Your task to perform on an android device: toggle priority inbox in the gmail app Image 0: 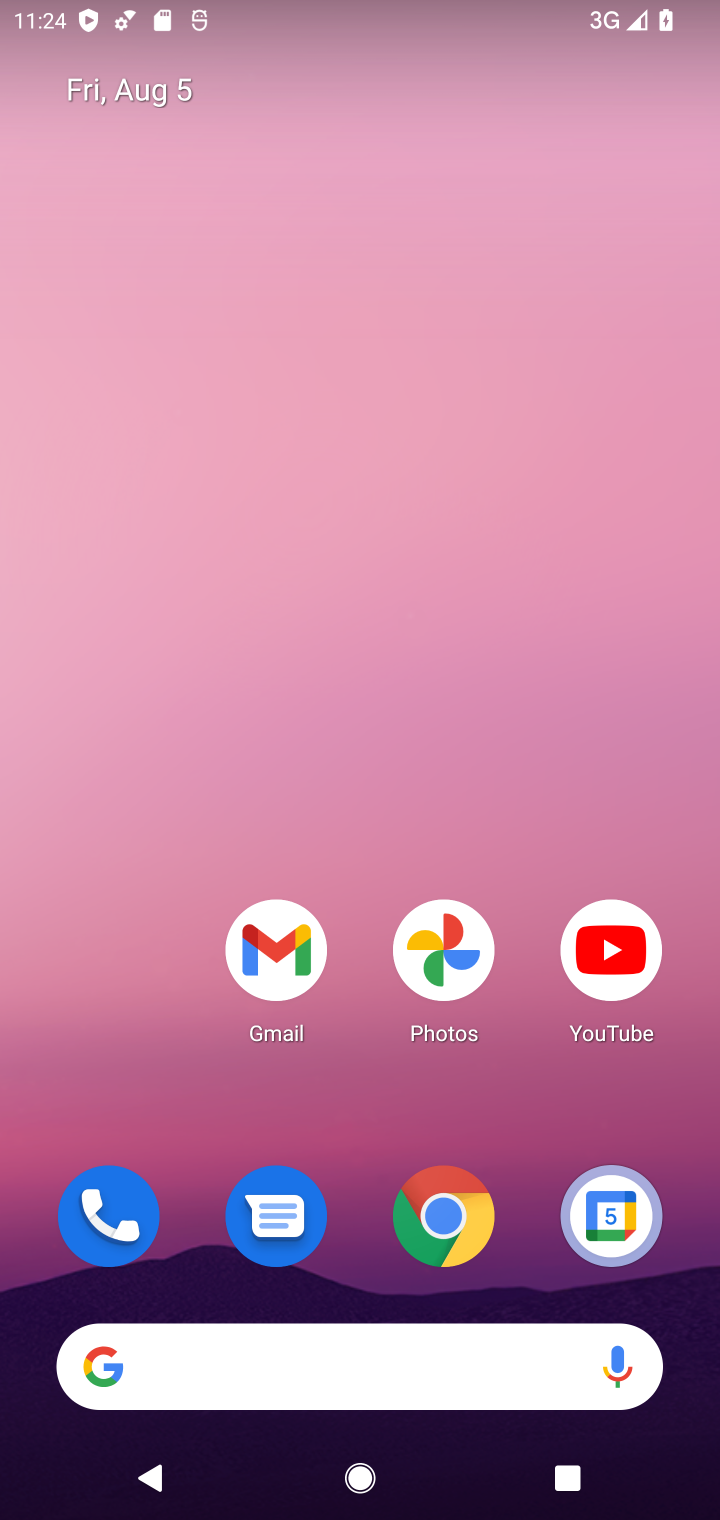
Step 0: drag from (360, 1301) to (244, 166)
Your task to perform on an android device: toggle priority inbox in the gmail app Image 1: 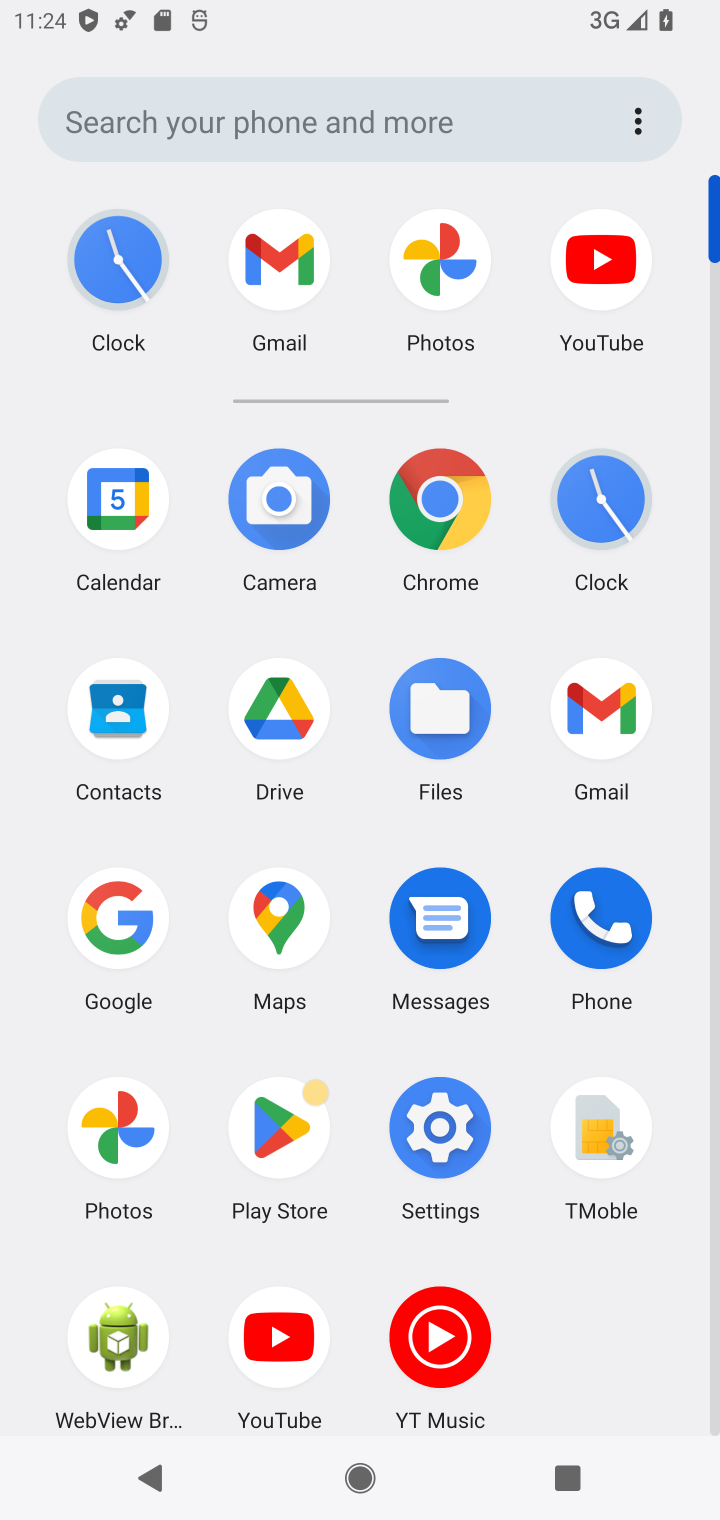
Step 1: click (612, 694)
Your task to perform on an android device: toggle priority inbox in the gmail app Image 2: 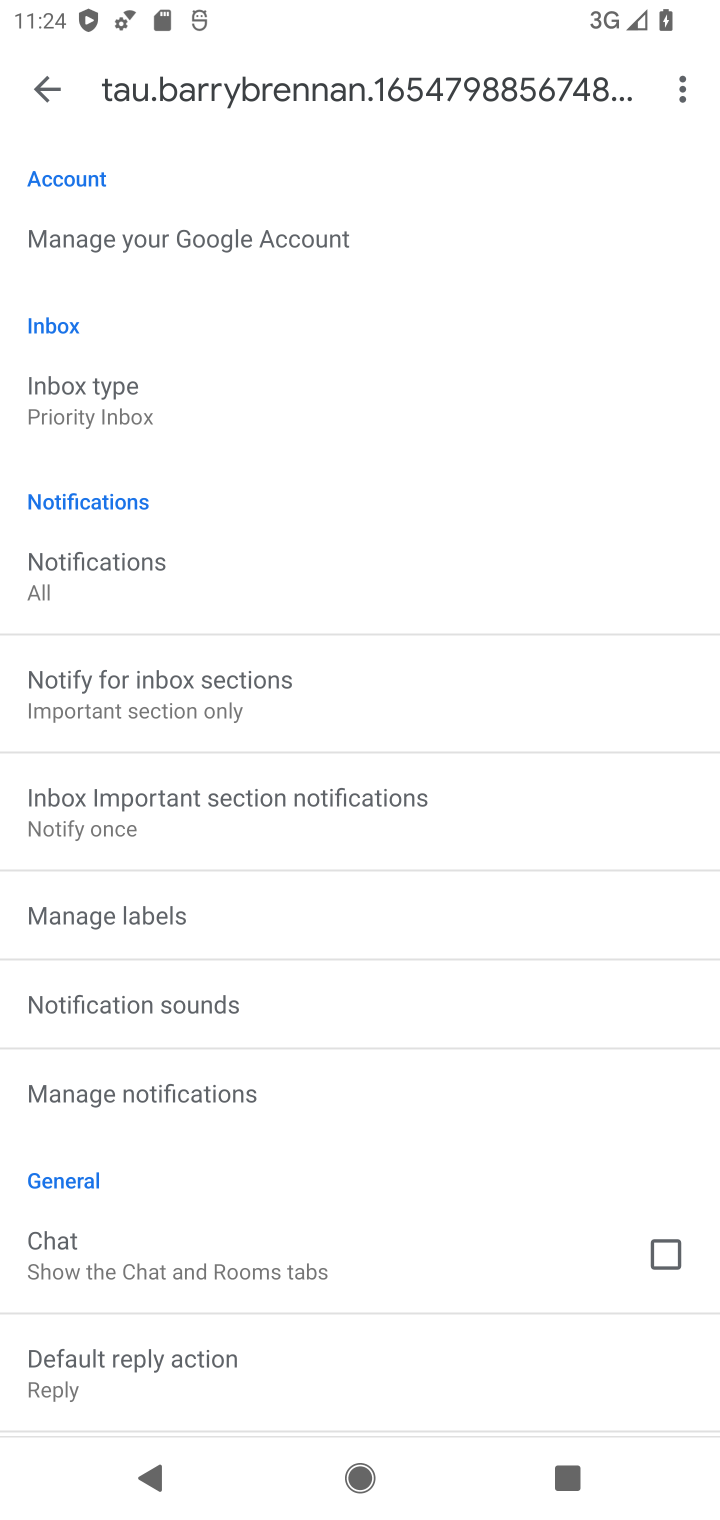
Step 2: click (129, 400)
Your task to perform on an android device: toggle priority inbox in the gmail app Image 3: 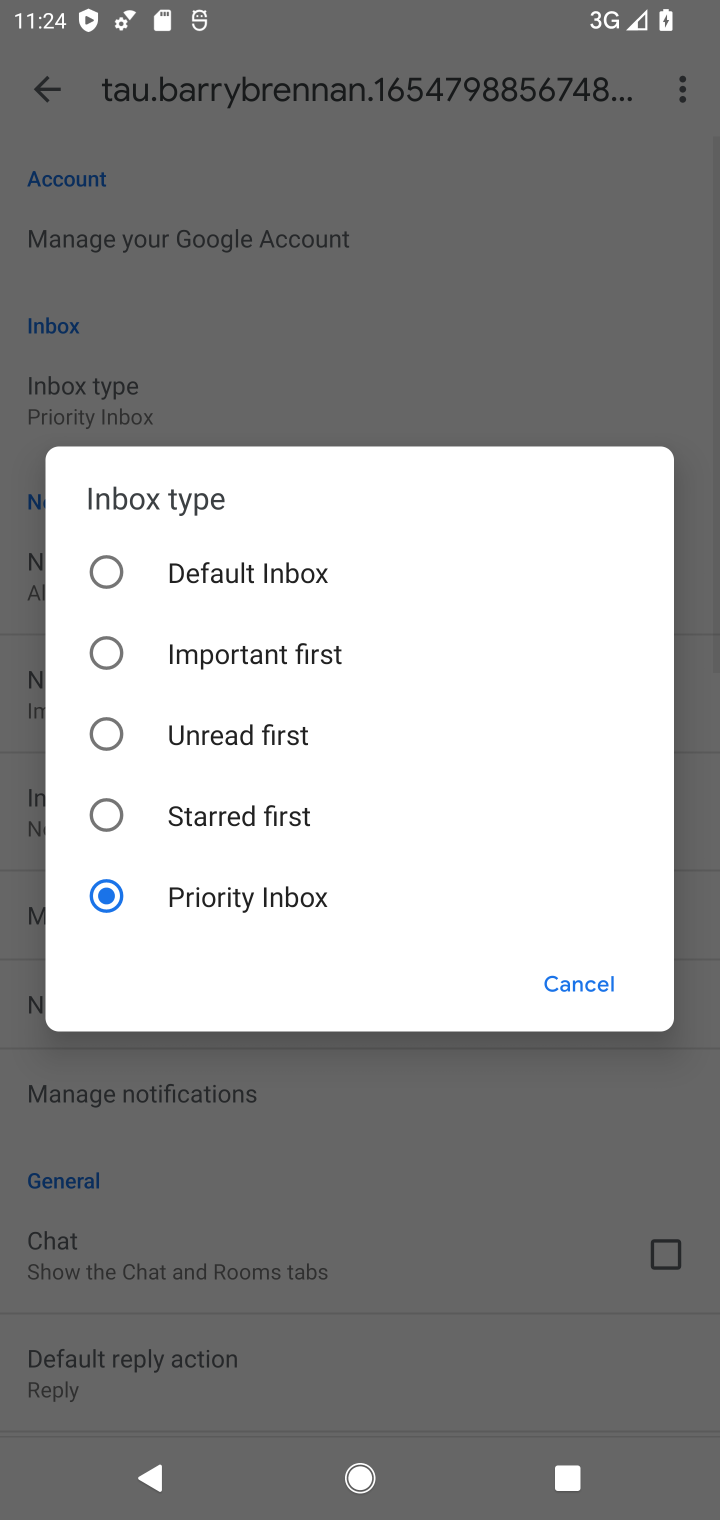
Step 3: click (112, 565)
Your task to perform on an android device: toggle priority inbox in the gmail app Image 4: 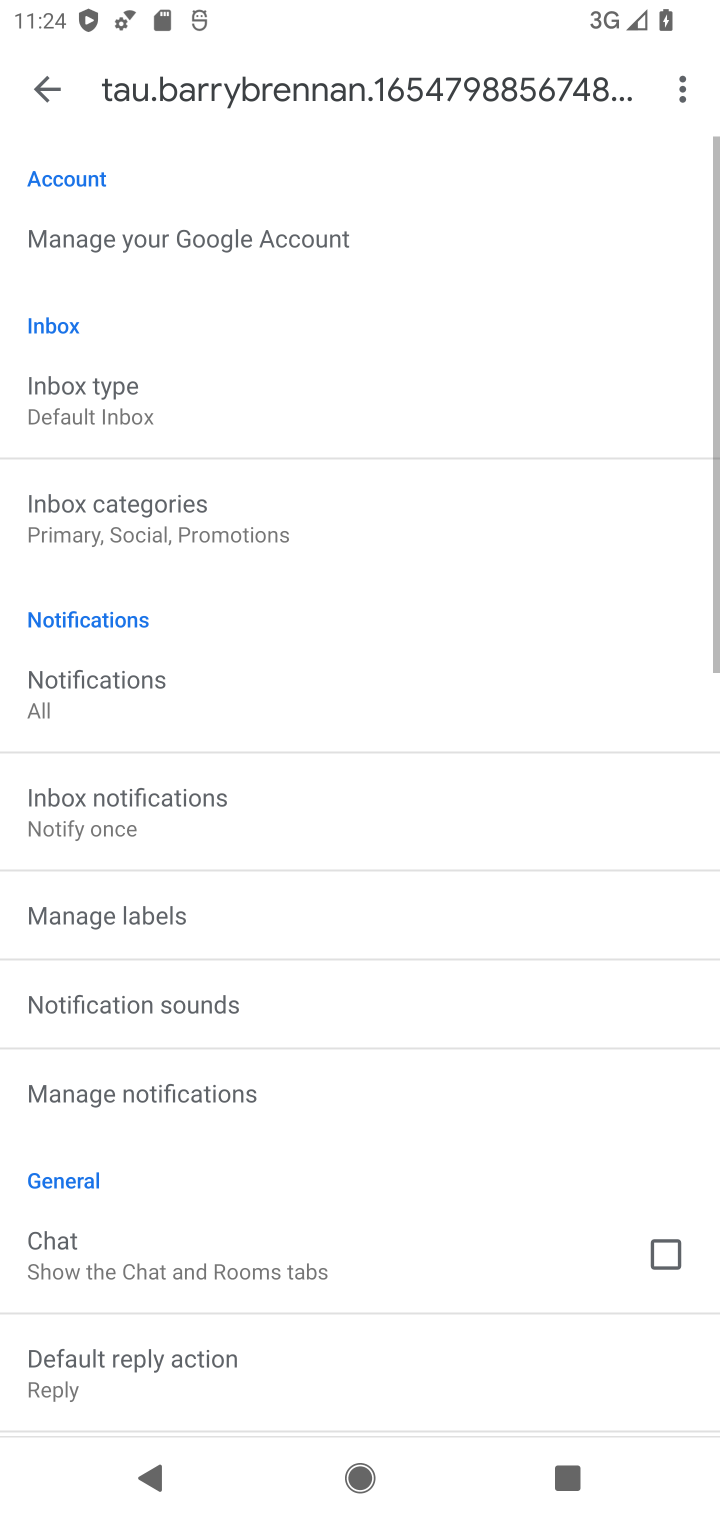
Step 4: task complete